Your task to perform on an android device: Open settings on Google Maps Image 0: 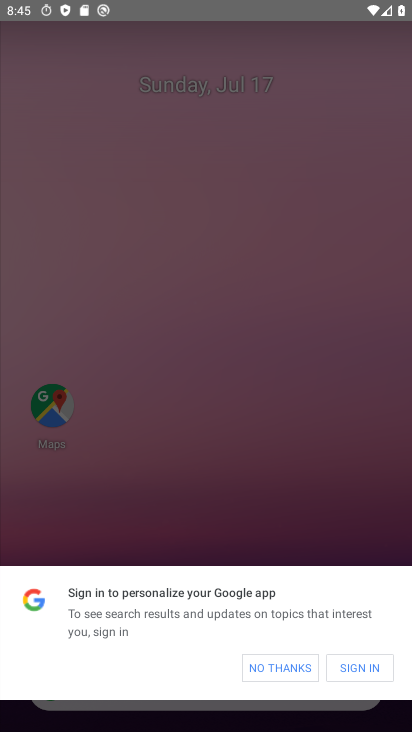
Step 0: press home button
Your task to perform on an android device: Open settings on Google Maps Image 1: 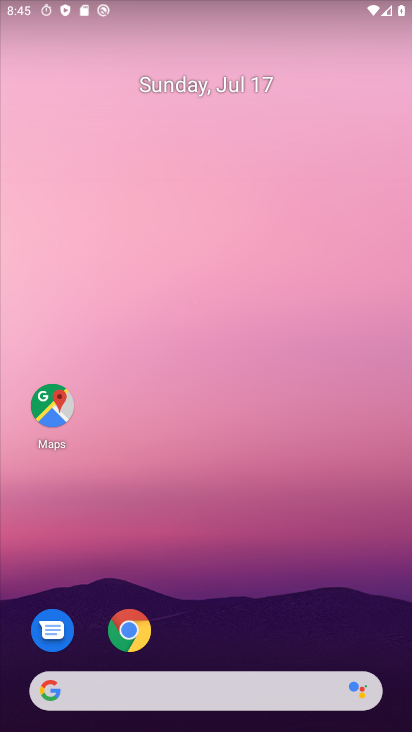
Step 1: click (44, 412)
Your task to perform on an android device: Open settings on Google Maps Image 2: 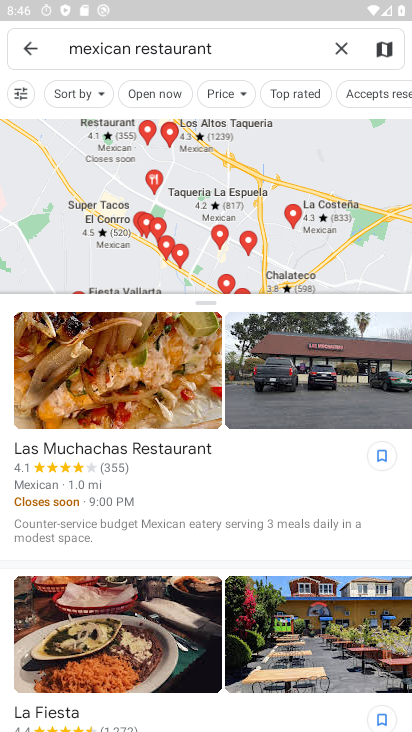
Step 2: click (18, 42)
Your task to perform on an android device: Open settings on Google Maps Image 3: 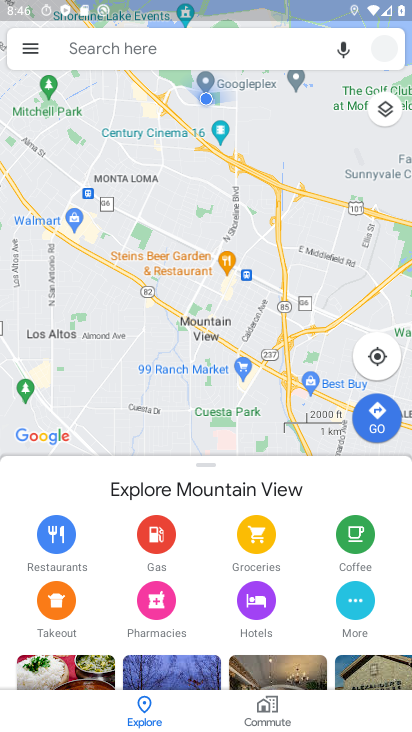
Step 3: click (20, 42)
Your task to perform on an android device: Open settings on Google Maps Image 4: 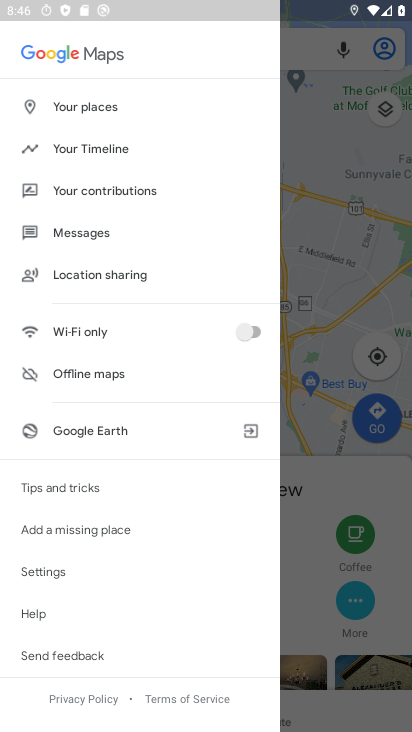
Step 4: click (80, 571)
Your task to perform on an android device: Open settings on Google Maps Image 5: 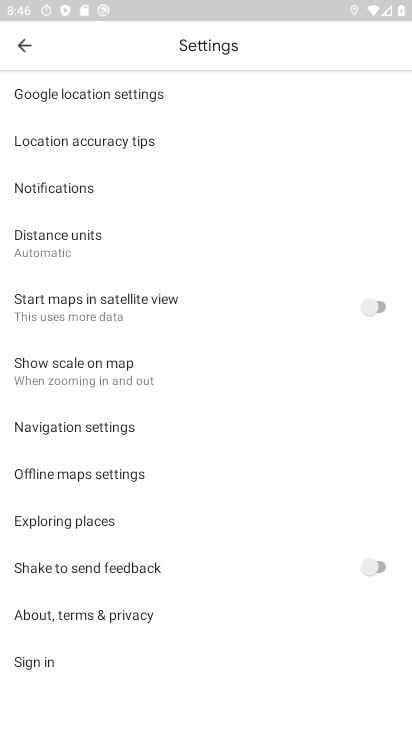
Step 5: task complete